Your task to perform on an android device: Go to CNN.com Image 0: 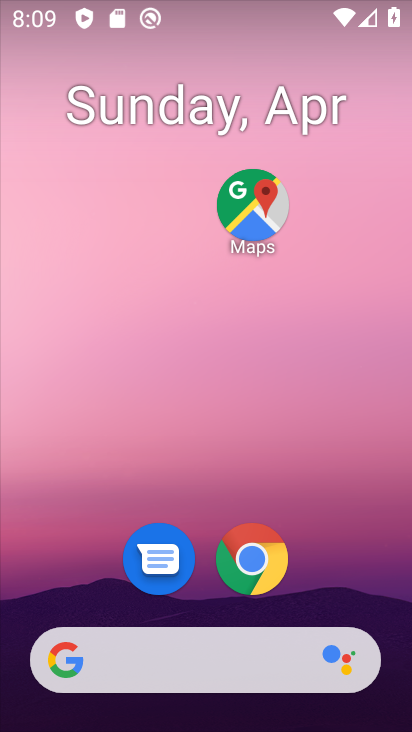
Step 0: click (246, 552)
Your task to perform on an android device: Go to CNN.com Image 1: 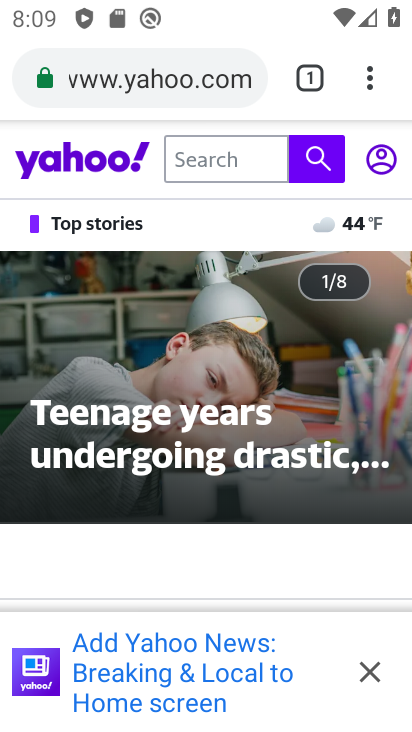
Step 1: press home button
Your task to perform on an android device: Go to CNN.com Image 2: 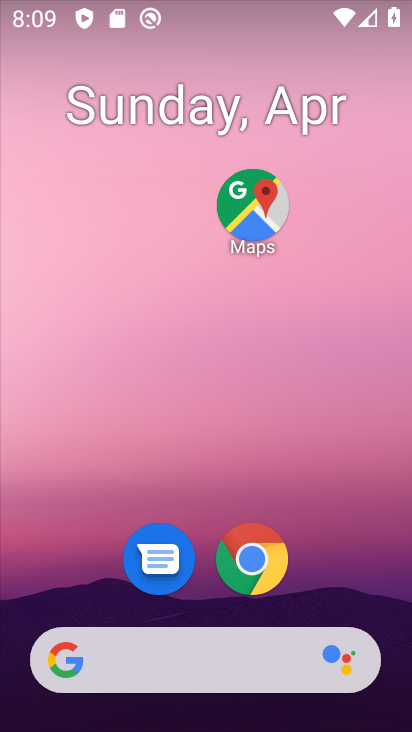
Step 2: click (232, 564)
Your task to perform on an android device: Go to CNN.com Image 3: 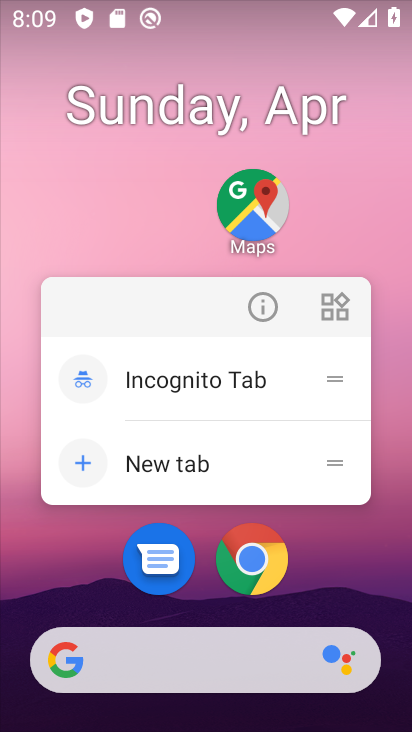
Step 3: click (256, 298)
Your task to perform on an android device: Go to CNN.com Image 4: 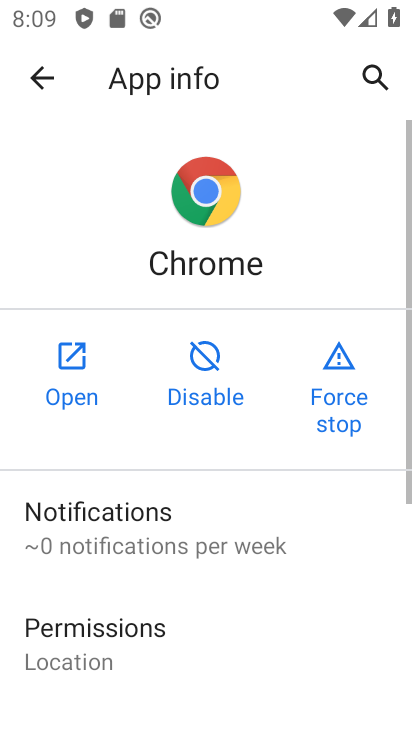
Step 4: click (75, 351)
Your task to perform on an android device: Go to CNN.com Image 5: 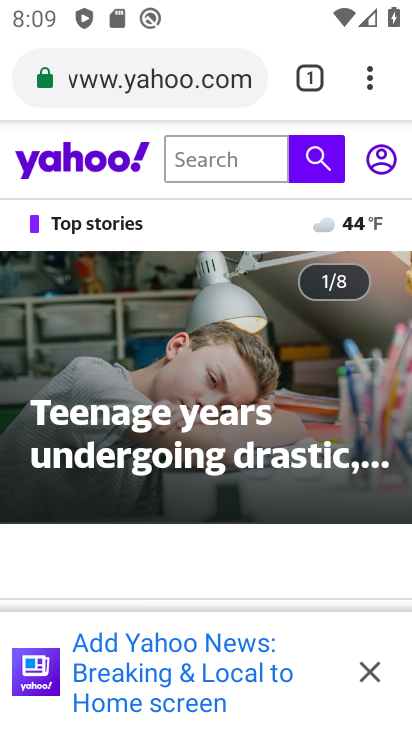
Step 5: press back button
Your task to perform on an android device: Go to CNN.com Image 6: 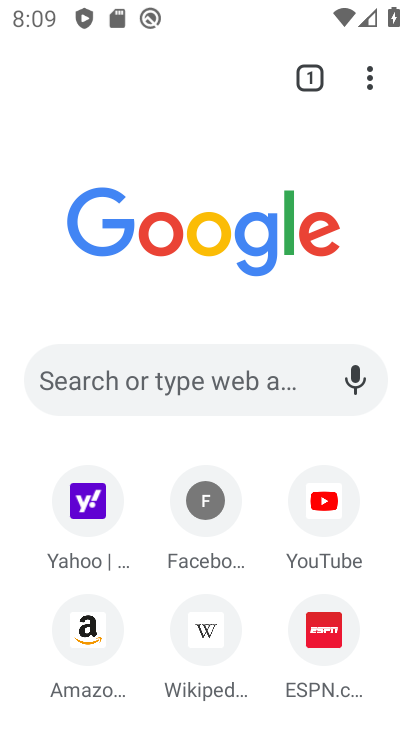
Step 6: press back button
Your task to perform on an android device: Go to CNN.com Image 7: 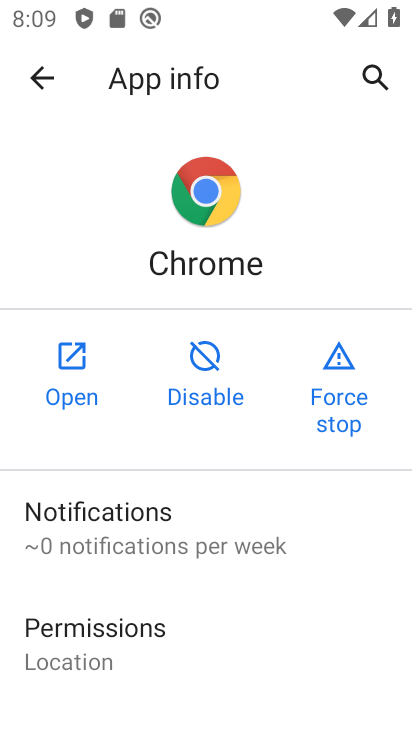
Step 7: click (61, 351)
Your task to perform on an android device: Go to CNN.com Image 8: 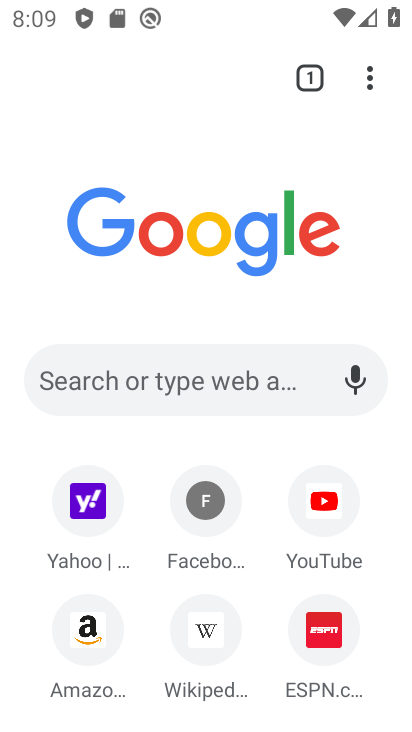
Step 8: click (167, 368)
Your task to perform on an android device: Go to CNN.com Image 9: 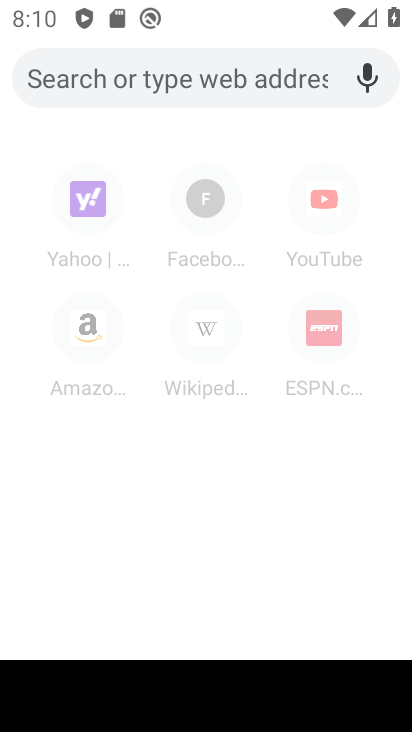
Step 9: click (184, 62)
Your task to perform on an android device: Go to CNN.com Image 10: 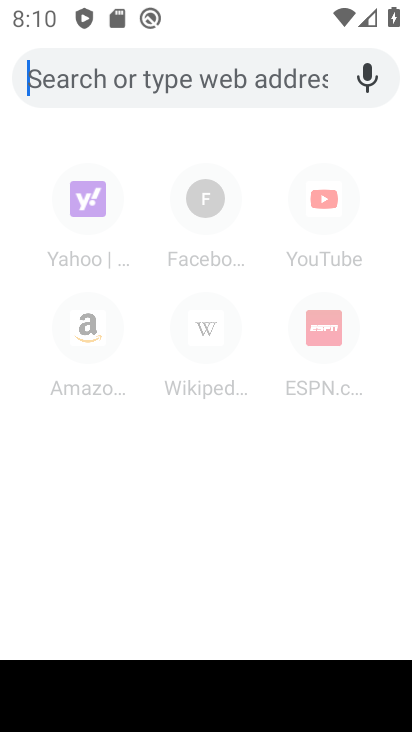
Step 10: type " CNN.com"
Your task to perform on an android device: Go to CNN.com Image 11: 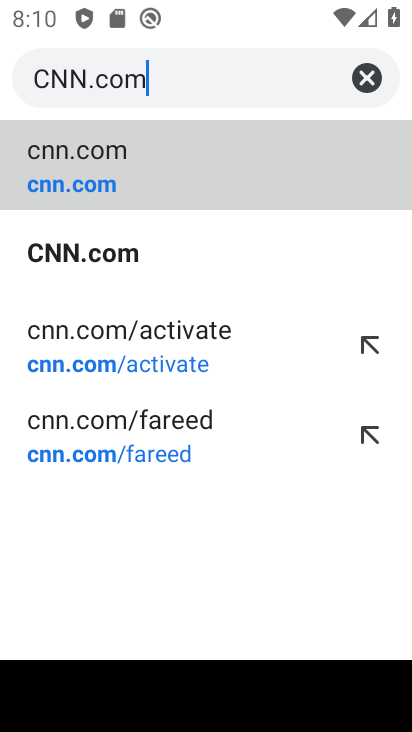
Step 11: click (99, 246)
Your task to perform on an android device: Go to CNN.com Image 12: 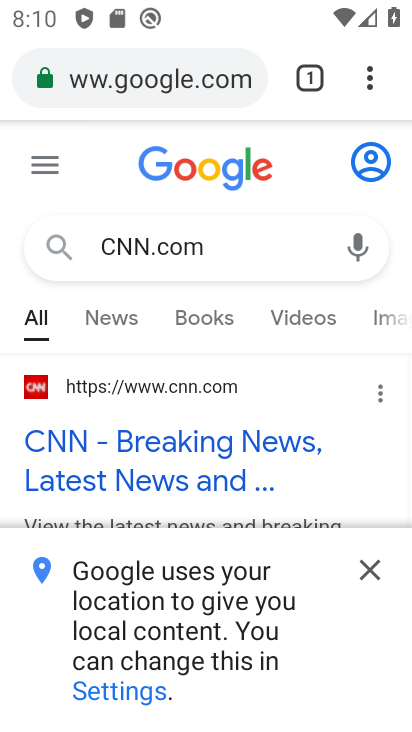
Step 12: click (371, 572)
Your task to perform on an android device: Go to CNN.com Image 13: 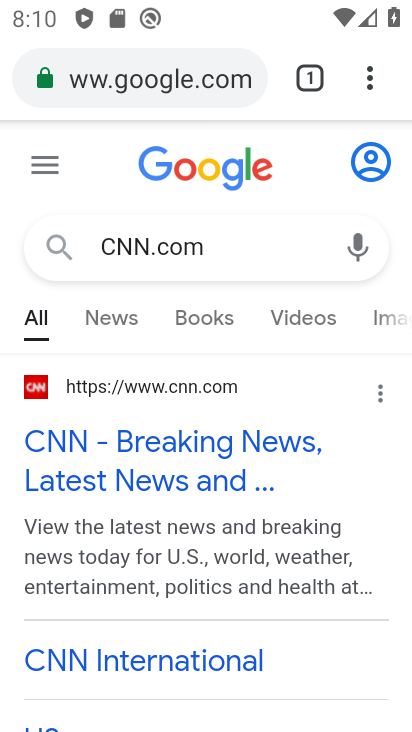
Step 13: task complete